Your task to perform on an android device: install app "Pluto TV - Live TV and Movies" Image 0: 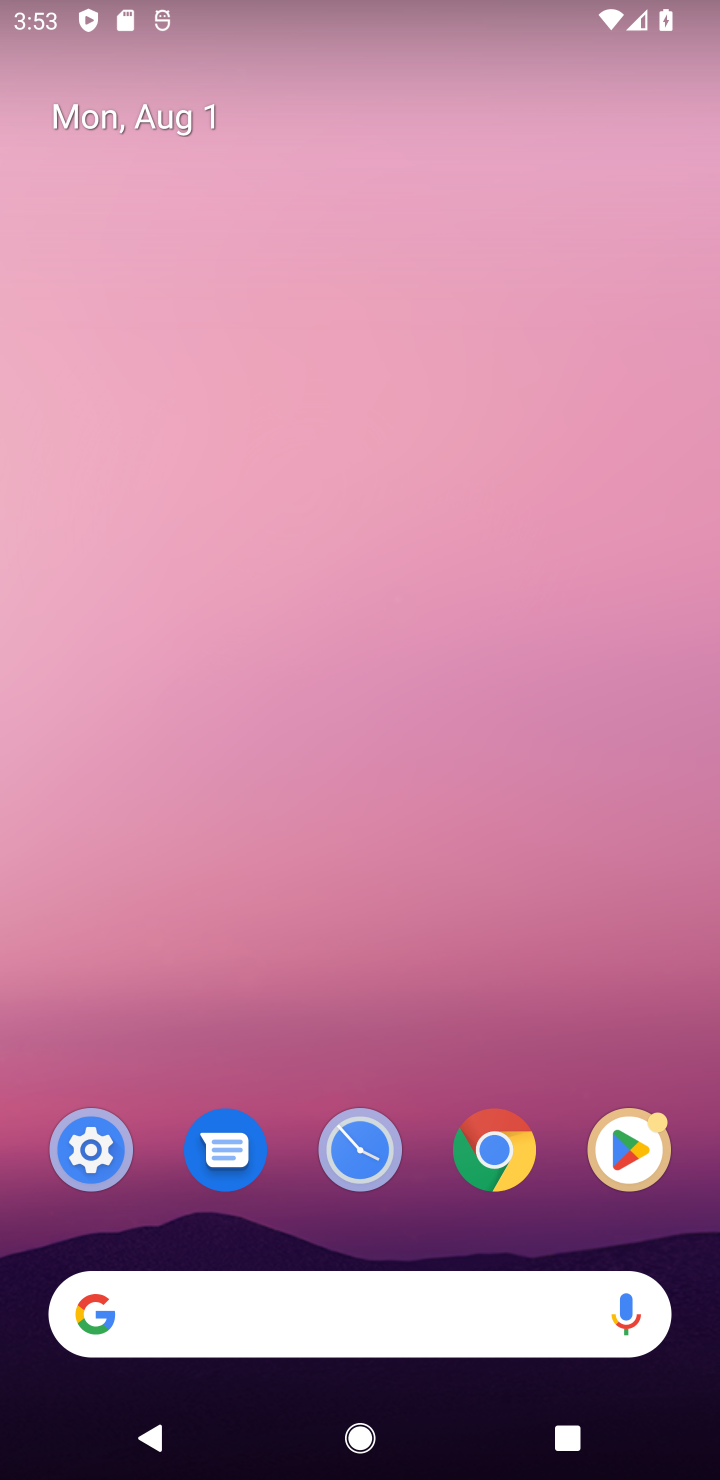
Step 0: click (607, 1136)
Your task to perform on an android device: install app "Pluto TV - Live TV and Movies" Image 1: 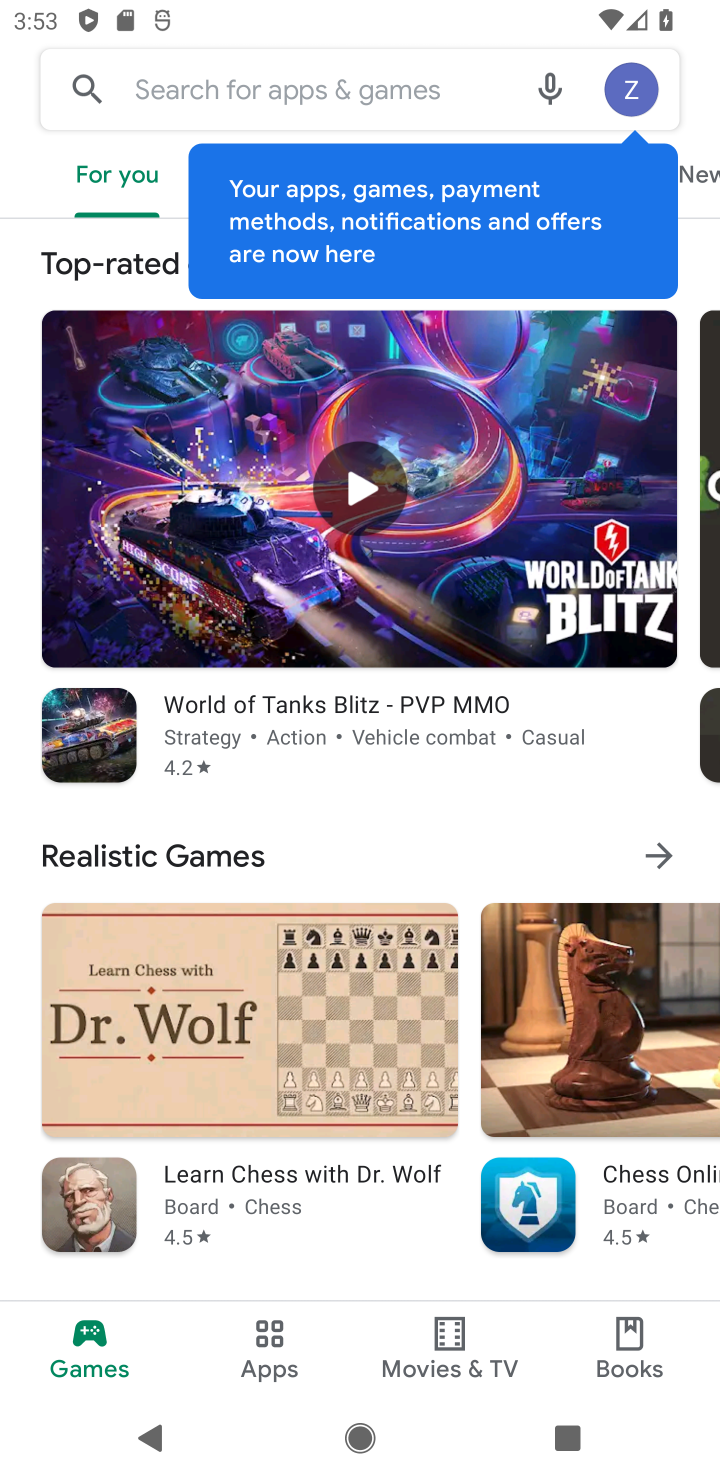
Step 1: click (292, 54)
Your task to perform on an android device: install app "Pluto TV - Live TV and Movies" Image 2: 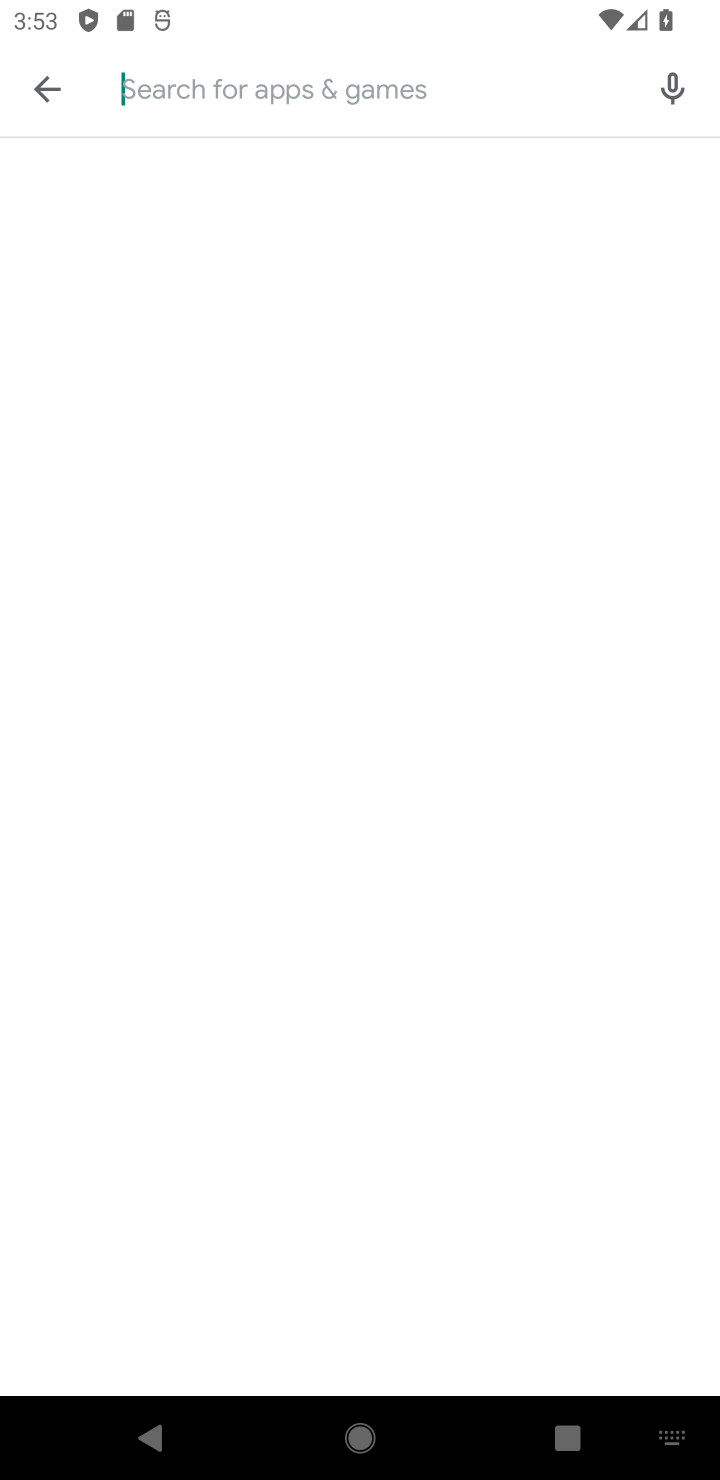
Step 2: click (155, 84)
Your task to perform on an android device: install app "Pluto TV - Live TV and Movies" Image 3: 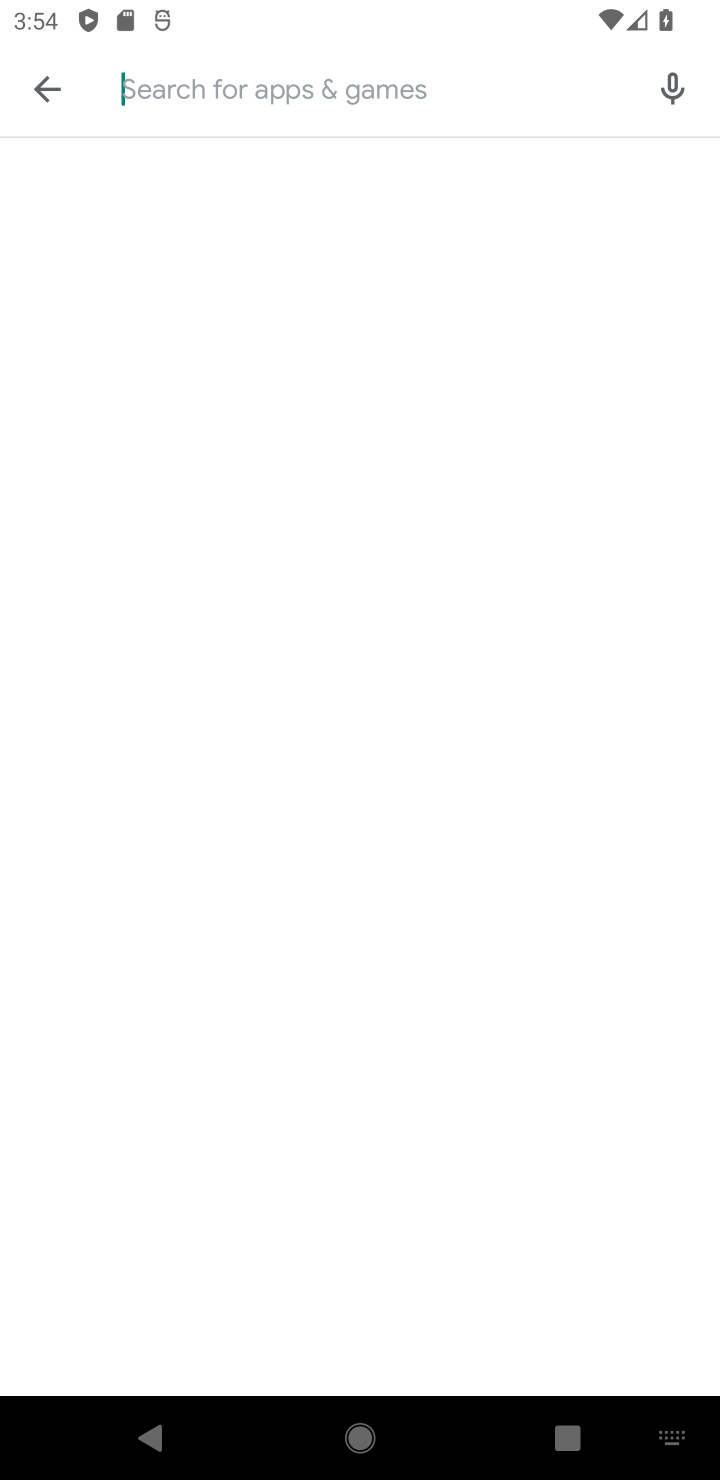
Step 3: type "pluto tv"
Your task to perform on an android device: install app "Pluto TV - Live TV and Movies" Image 4: 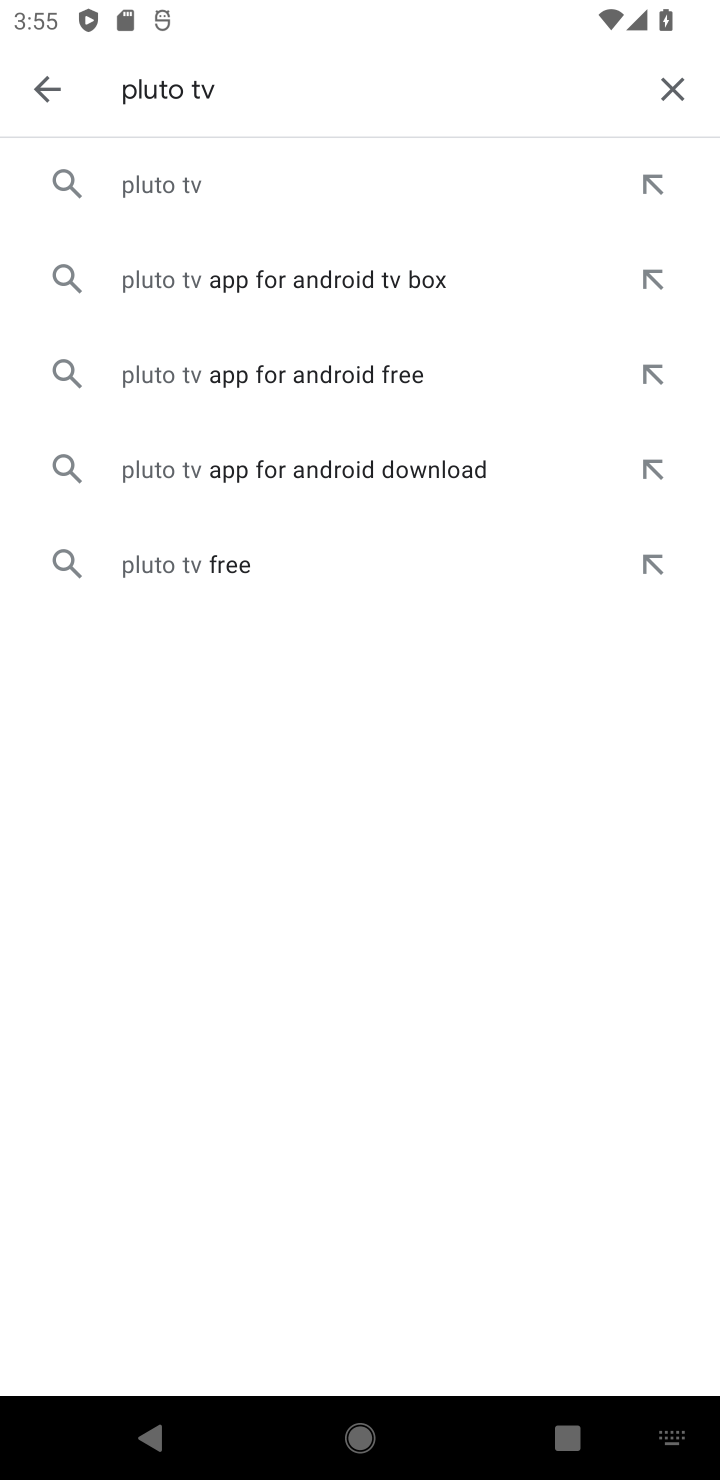
Step 4: click (210, 187)
Your task to perform on an android device: install app "Pluto TV - Live TV and Movies" Image 5: 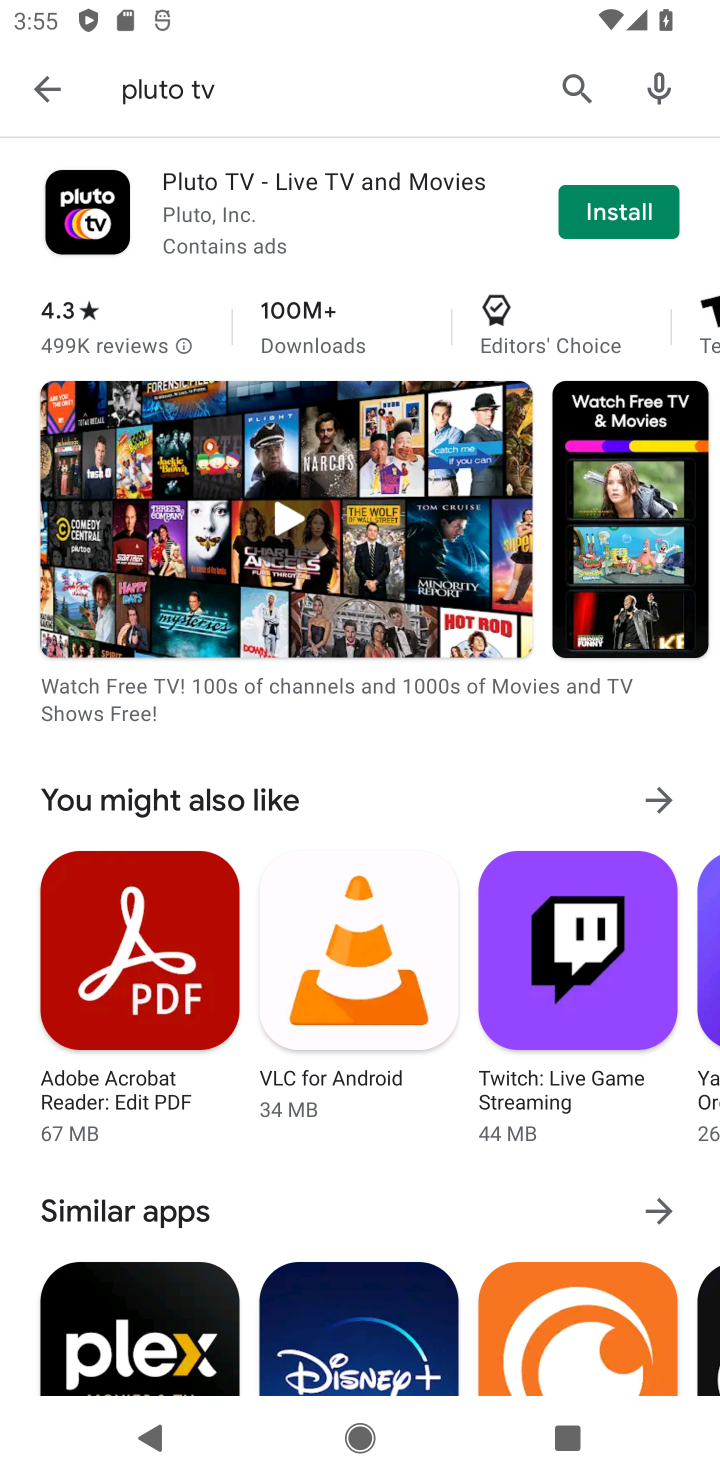
Step 5: click (628, 226)
Your task to perform on an android device: install app "Pluto TV - Live TV and Movies" Image 6: 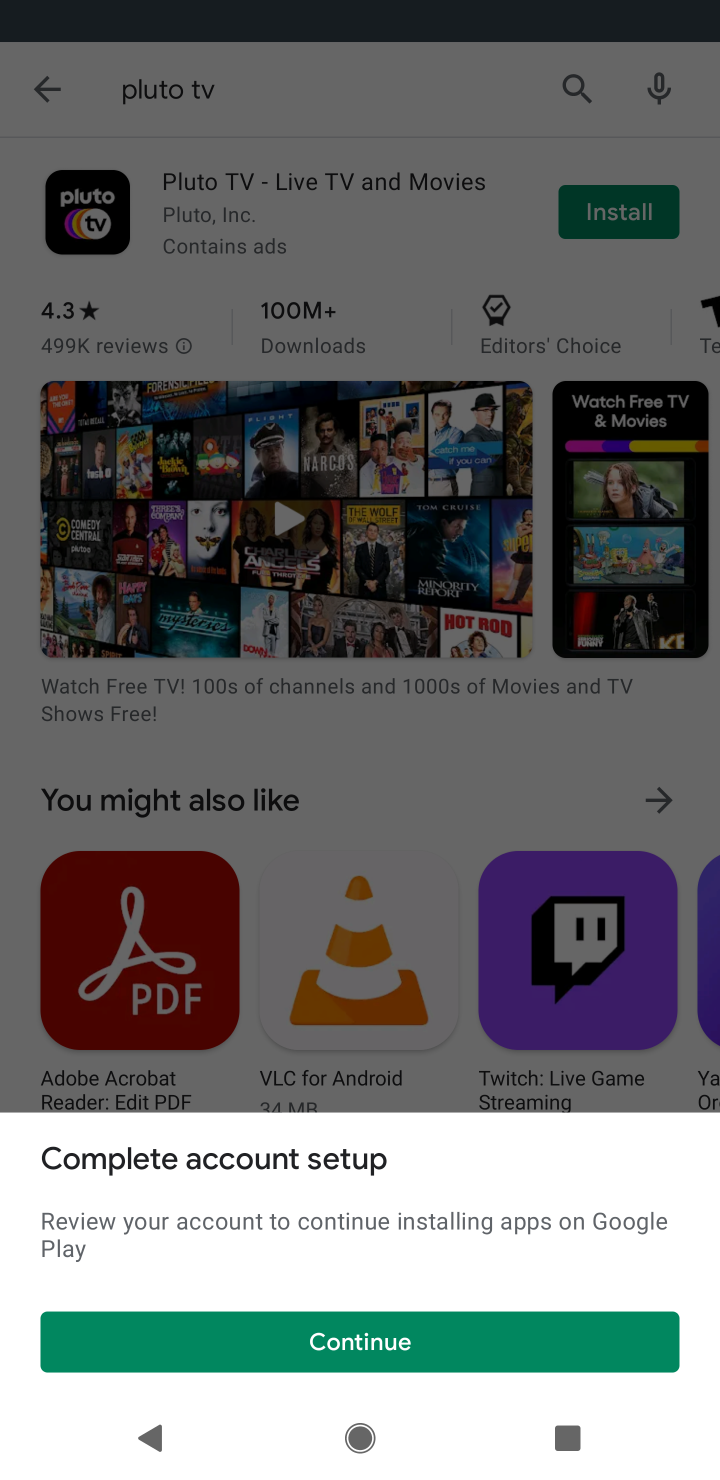
Step 6: click (468, 1346)
Your task to perform on an android device: install app "Pluto TV - Live TV and Movies" Image 7: 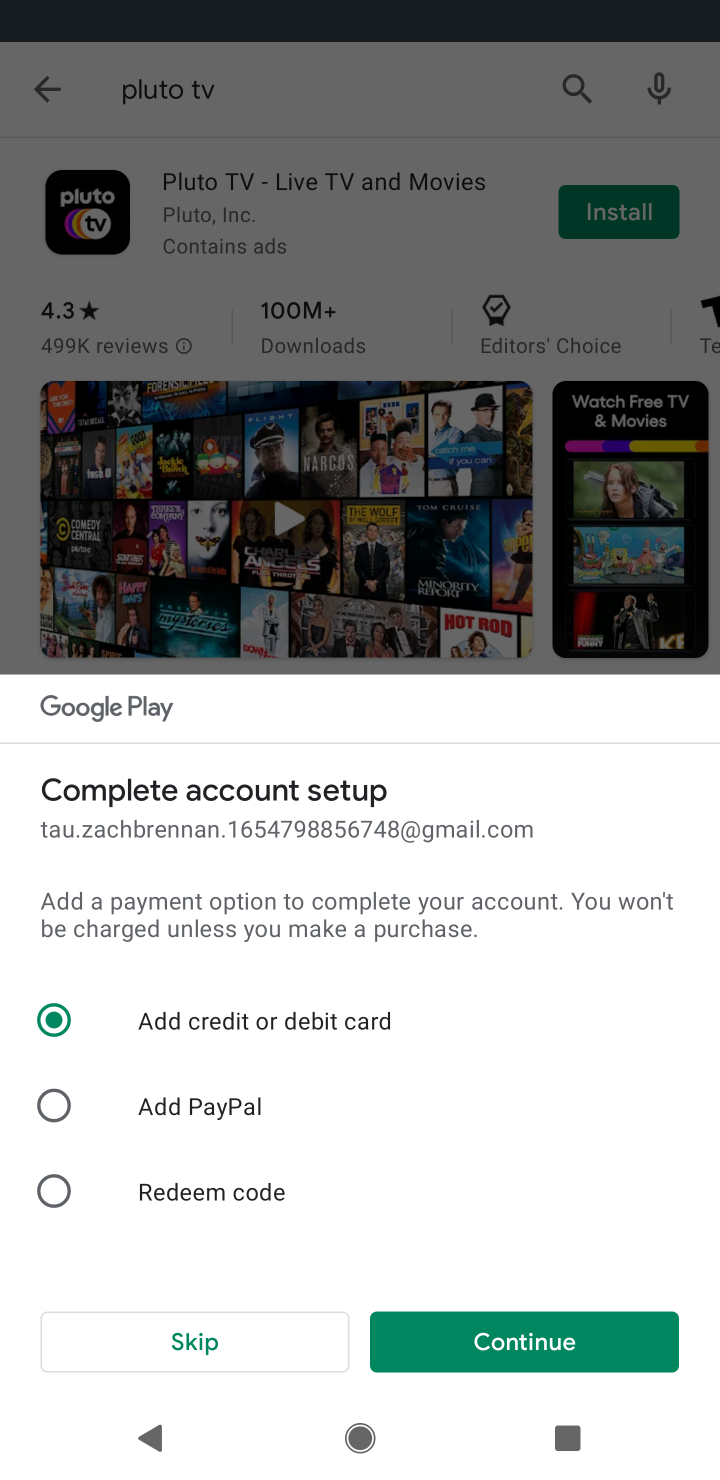
Step 7: click (170, 1322)
Your task to perform on an android device: install app "Pluto TV - Live TV and Movies" Image 8: 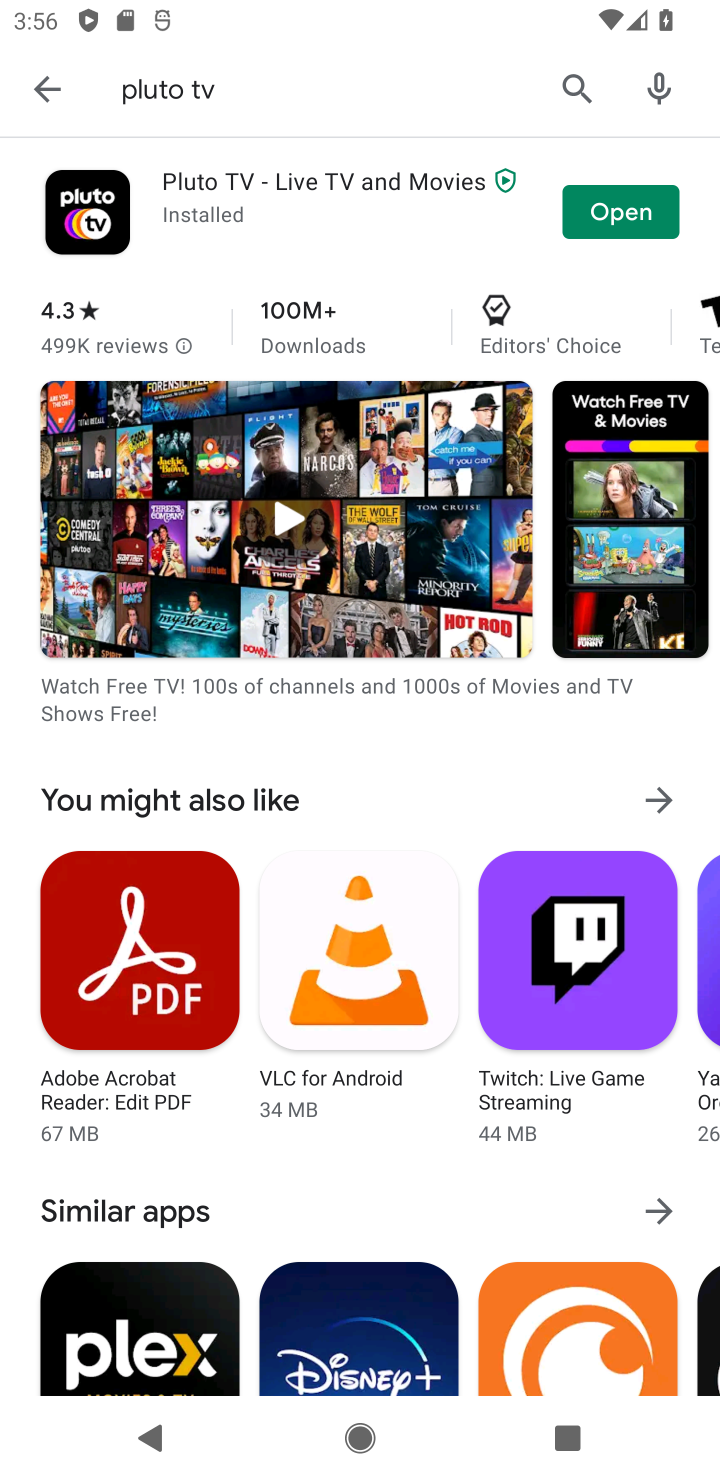
Step 8: task complete